Your task to perform on an android device: What is the news today? Image 0: 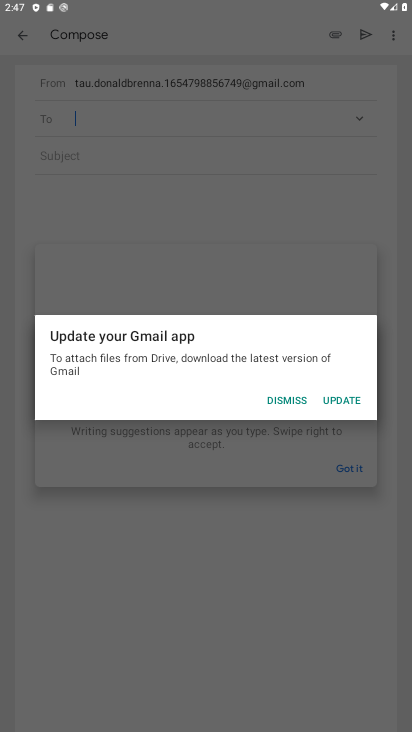
Step 0: press back button
Your task to perform on an android device: What is the news today? Image 1: 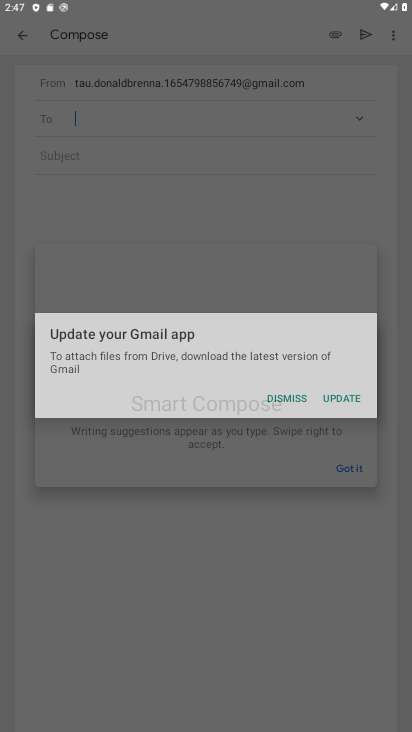
Step 1: press back button
Your task to perform on an android device: What is the news today? Image 2: 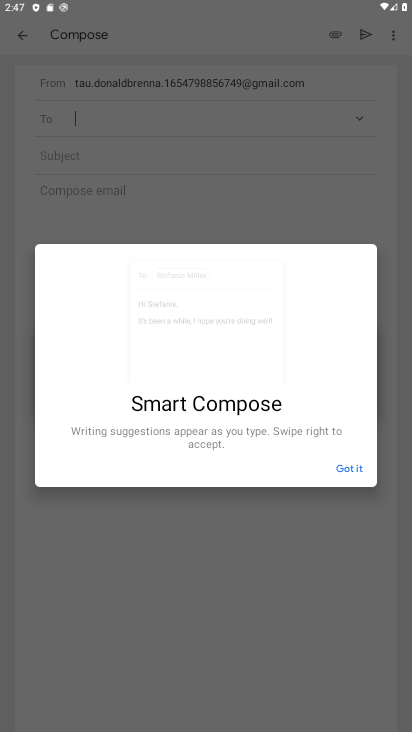
Step 2: press back button
Your task to perform on an android device: What is the news today? Image 3: 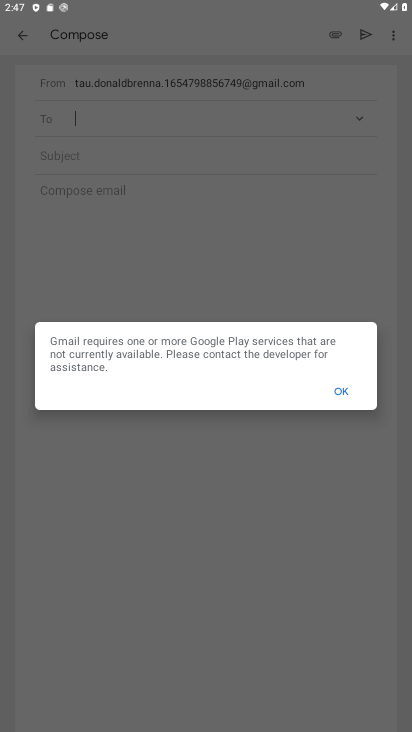
Step 3: press back button
Your task to perform on an android device: What is the news today? Image 4: 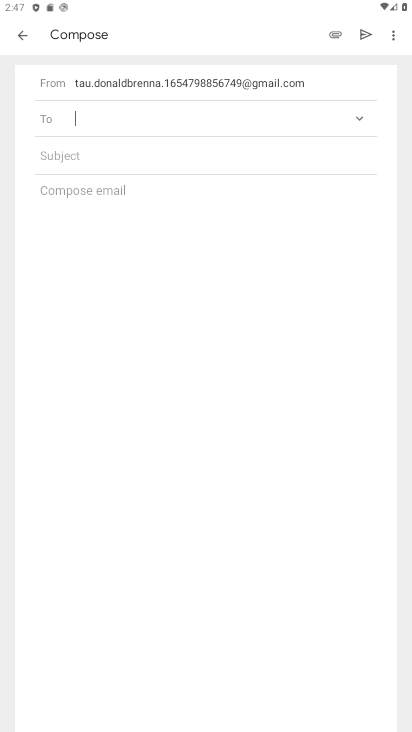
Step 4: press back button
Your task to perform on an android device: What is the news today? Image 5: 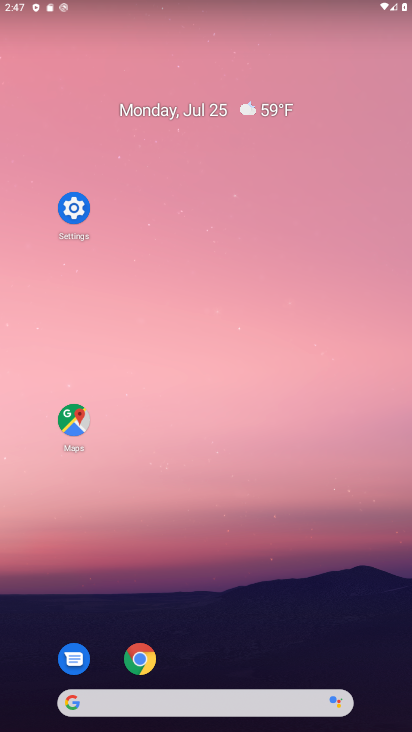
Step 5: drag from (264, 652) to (357, 178)
Your task to perform on an android device: What is the news today? Image 6: 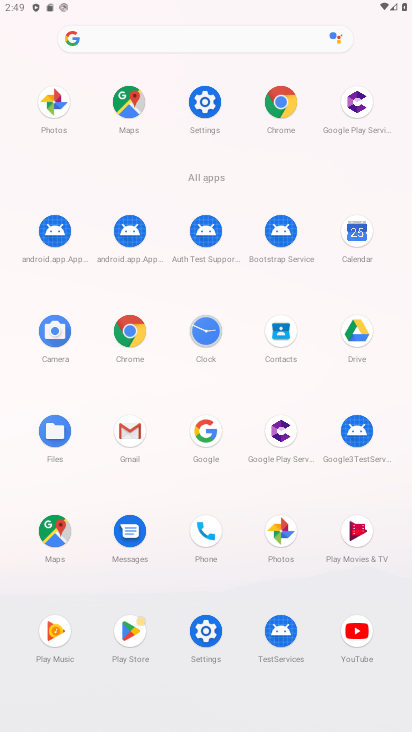
Step 6: click (201, 437)
Your task to perform on an android device: What is the news today? Image 7: 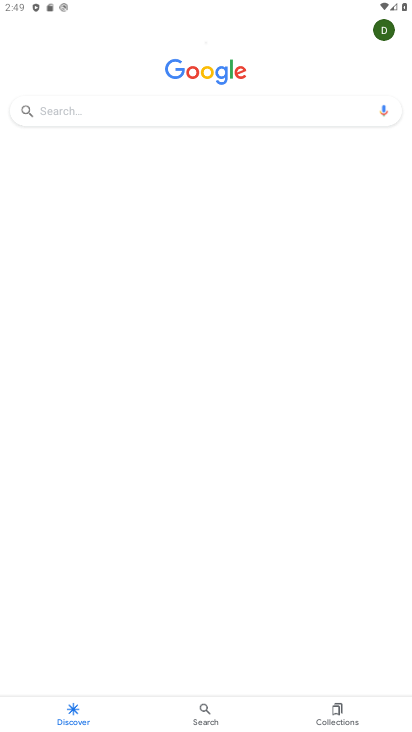
Step 7: click (208, 106)
Your task to perform on an android device: What is the news today? Image 8: 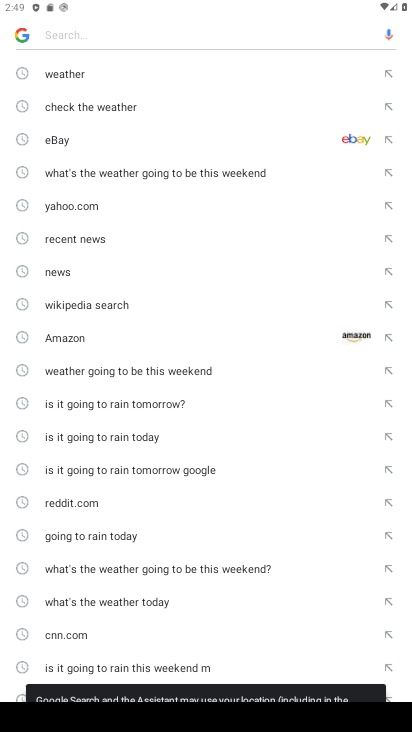
Step 8: click (70, 278)
Your task to perform on an android device: What is the news today? Image 9: 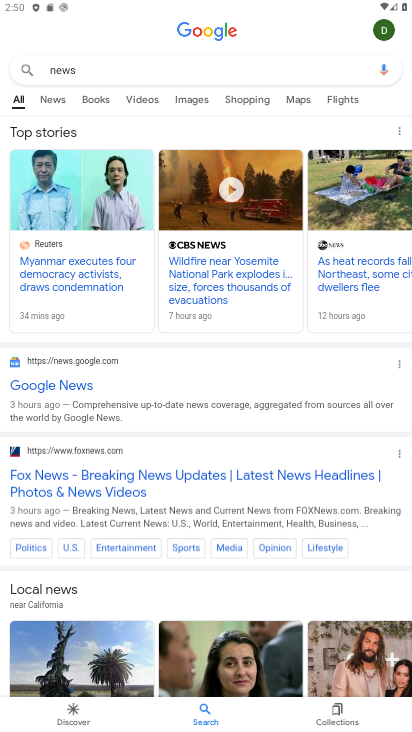
Step 9: task complete